Your task to perform on an android device: Go to privacy settings Image 0: 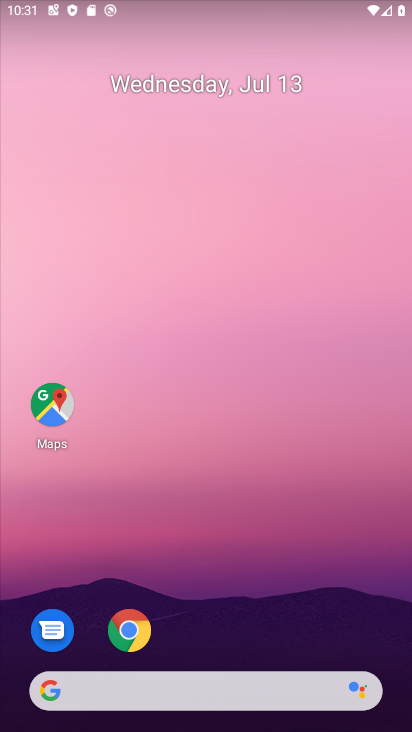
Step 0: drag from (259, 426) to (269, 1)
Your task to perform on an android device: Go to privacy settings Image 1: 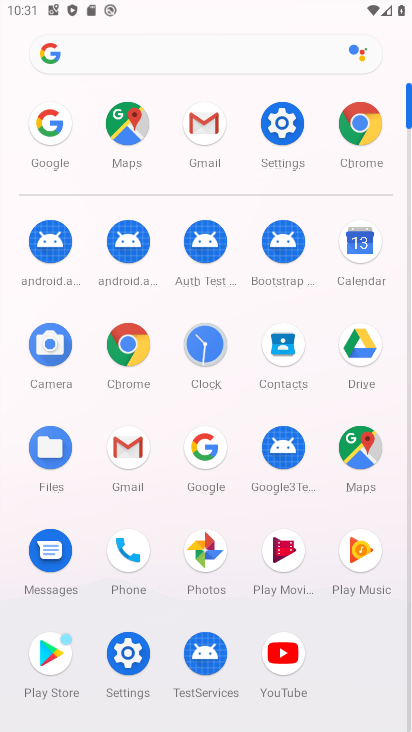
Step 1: click (289, 142)
Your task to perform on an android device: Go to privacy settings Image 2: 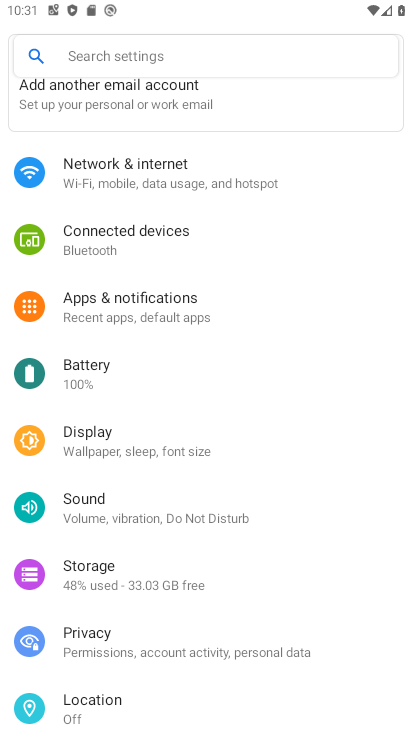
Step 2: click (156, 642)
Your task to perform on an android device: Go to privacy settings Image 3: 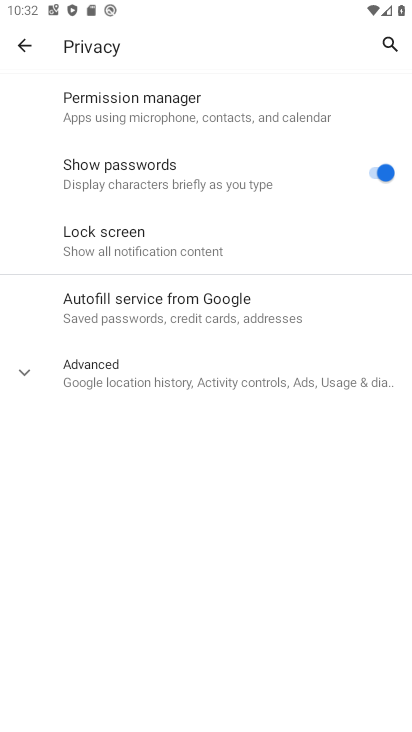
Step 3: task complete